Your task to perform on an android device: turn off javascript in the chrome app Image 0: 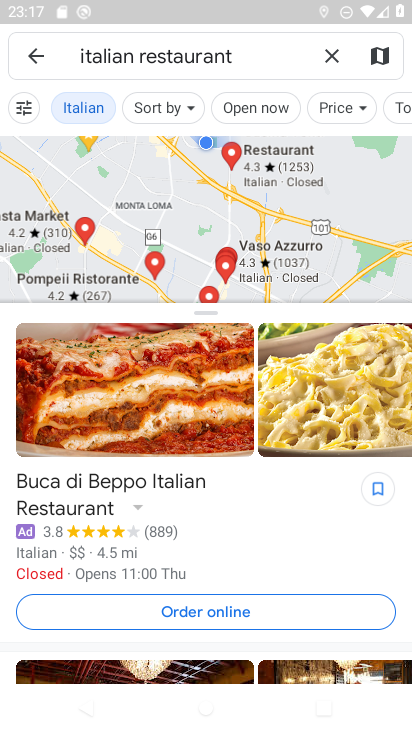
Step 0: press home button
Your task to perform on an android device: turn off javascript in the chrome app Image 1: 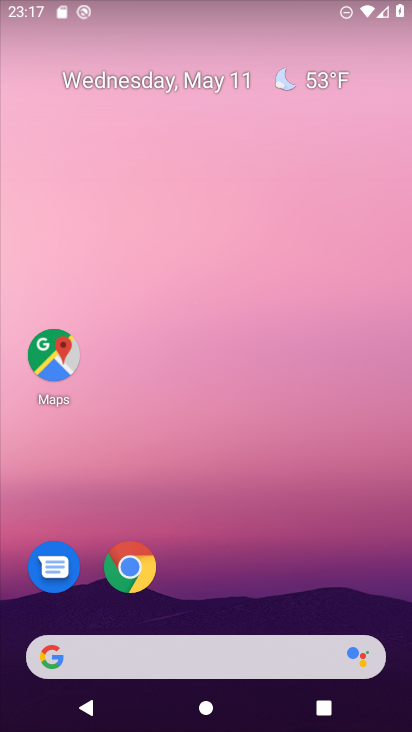
Step 1: click (132, 573)
Your task to perform on an android device: turn off javascript in the chrome app Image 2: 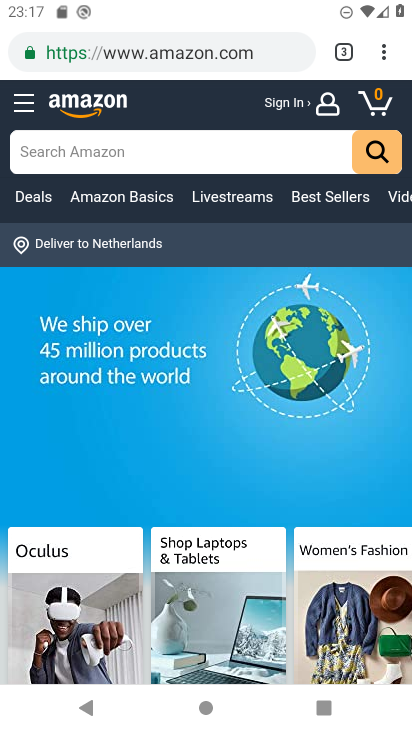
Step 2: click (383, 52)
Your task to perform on an android device: turn off javascript in the chrome app Image 3: 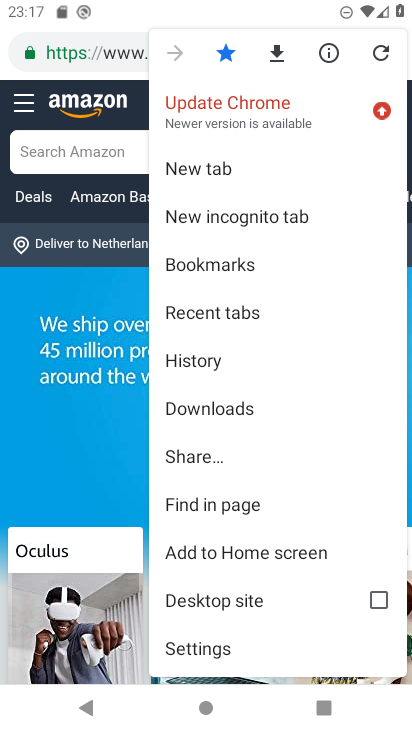
Step 3: click (198, 643)
Your task to perform on an android device: turn off javascript in the chrome app Image 4: 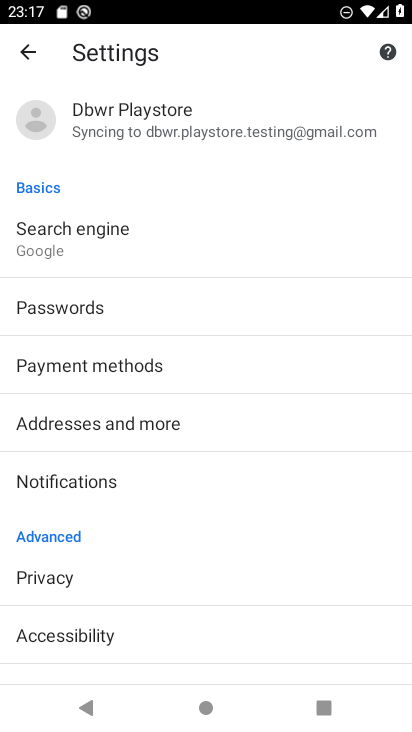
Step 4: drag from (189, 592) to (260, 209)
Your task to perform on an android device: turn off javascript in the chrome app Image 5: 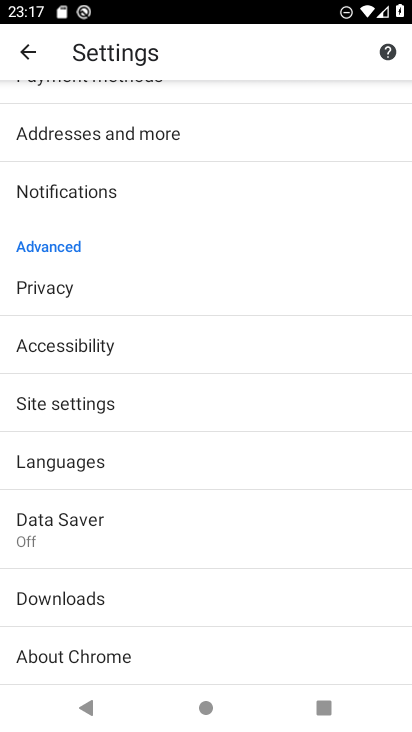
Step 5: click (92, 397)
Your task to perform on an android device: turn off javascript in the chrome app Image 6: 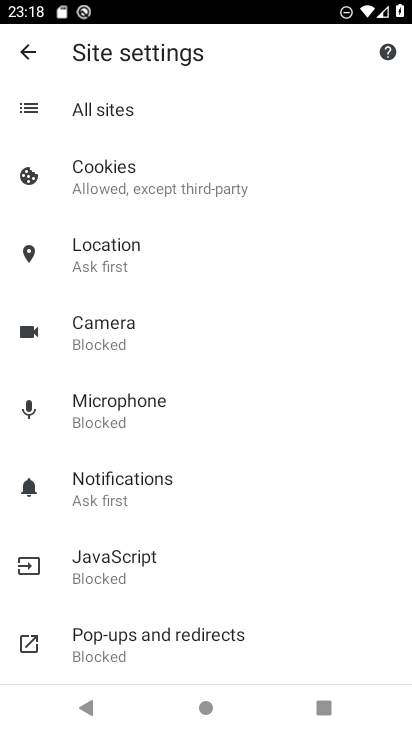
Step 6: click (133, 585)
Your task to perform on an android device: turn off javascript in the chrome app Image 7: 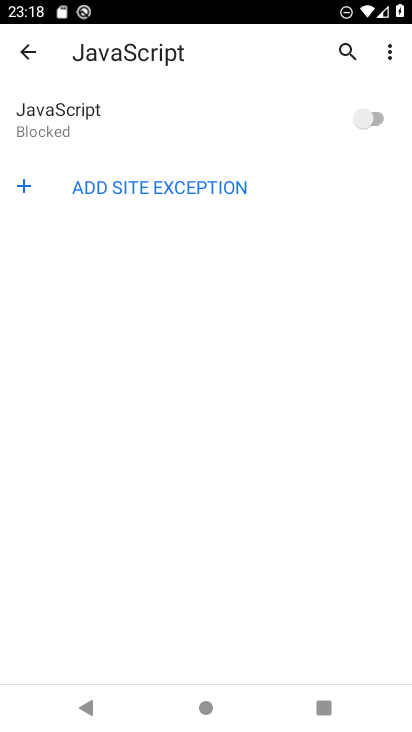
Step 7: task complete